Your task to perform on an android device: Go to privacy settings Image 0: 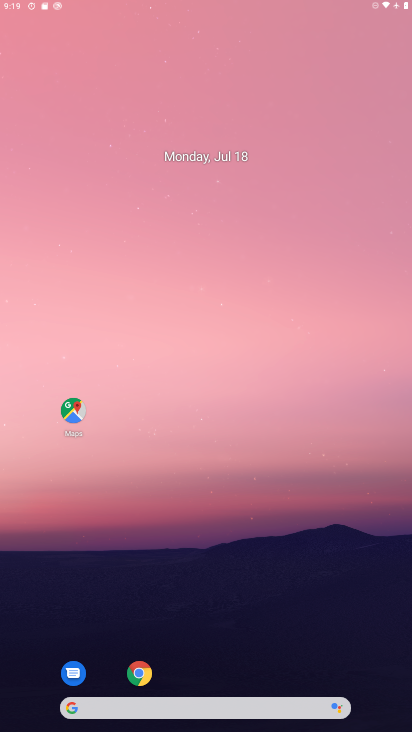
Step 0: press home button
Your task to perform on an android device: Go to privacy settings Image 1: 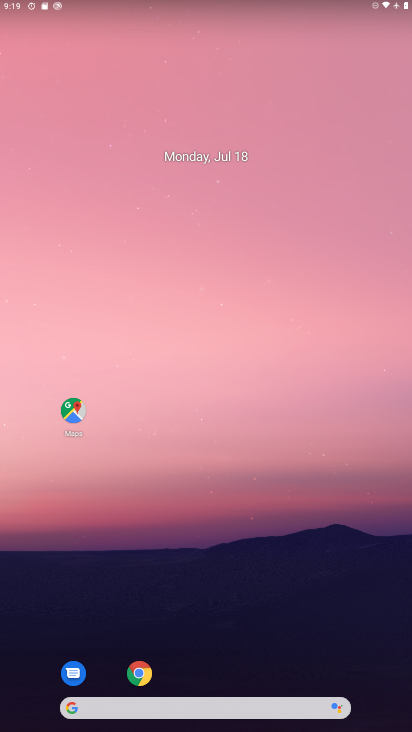
Step 1: drag from (211, 633) to (229, 100)
Your task to perform on an android device: Go to privacy settings Image 2: 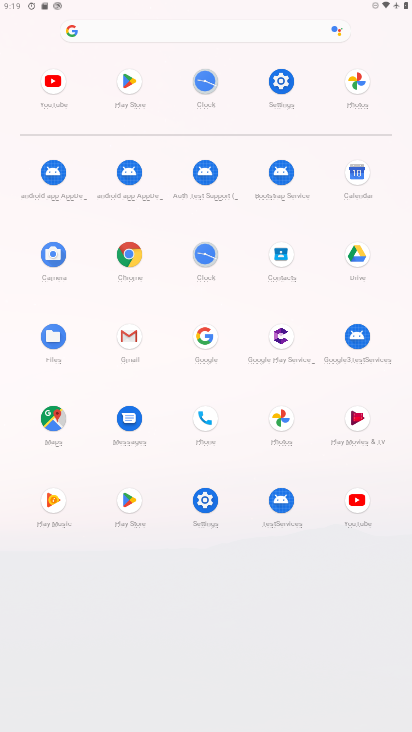
Step 2: click (282, 82)
Your task to perform on an android device: Go to privacy settings Image 3: 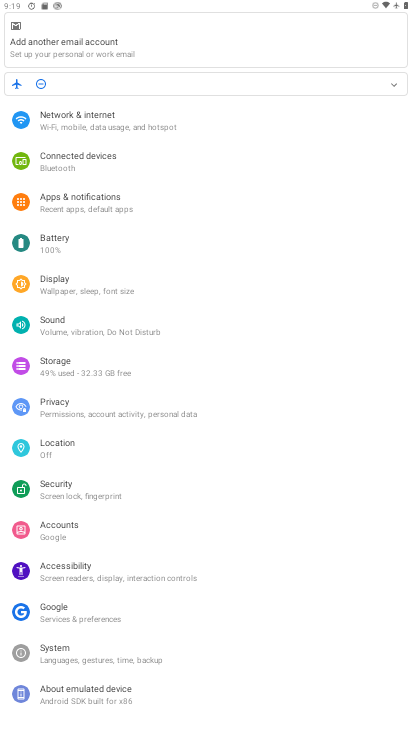
Step 3: click (57, 409)
Your task to perform on an android device: Go to privacy settings Image 4: 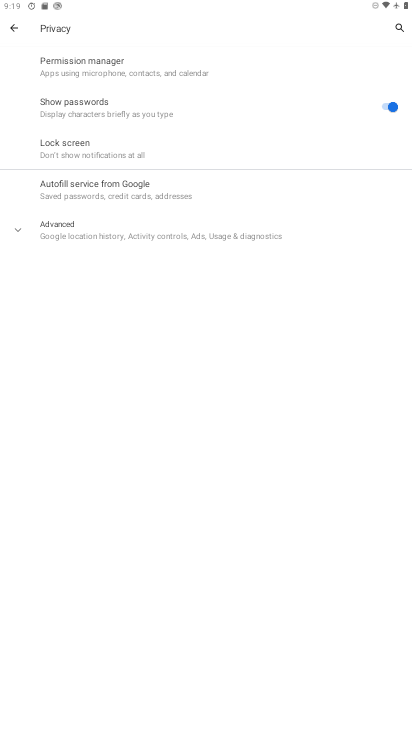
Step 4: task complete